Your task to perform on an android device: change the upload size in google photos Image 0: 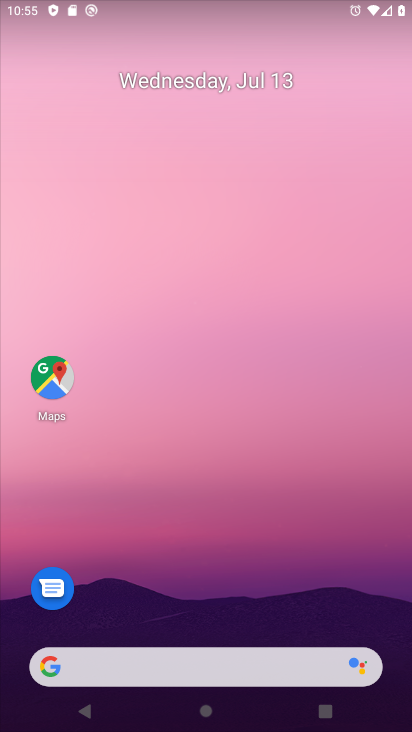
Step 0: drag from (177, 616) to (340, 75)
Your task to perform on an android device: change the upload size in google photos Image 1: 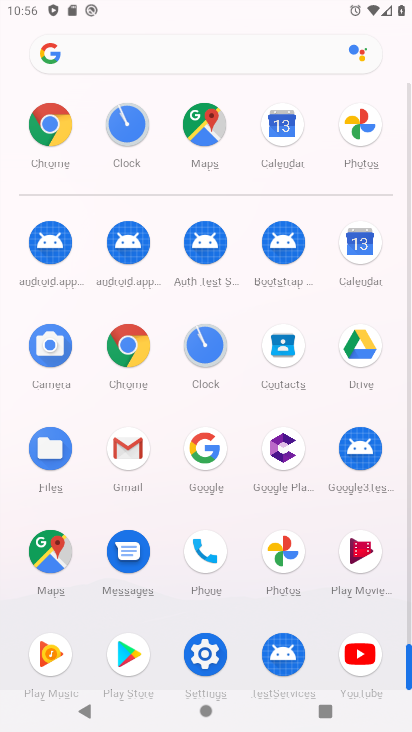
Step 1: click (297, 542)
Your task to perform on an android device: change the upload size in google photos Image 2: 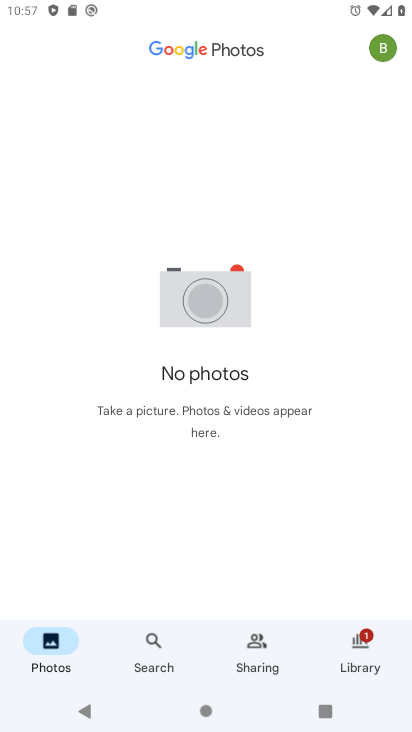
Step 2: click (385, 43)
Your task to perform on an android device: change the upload size in google photos Image 3: 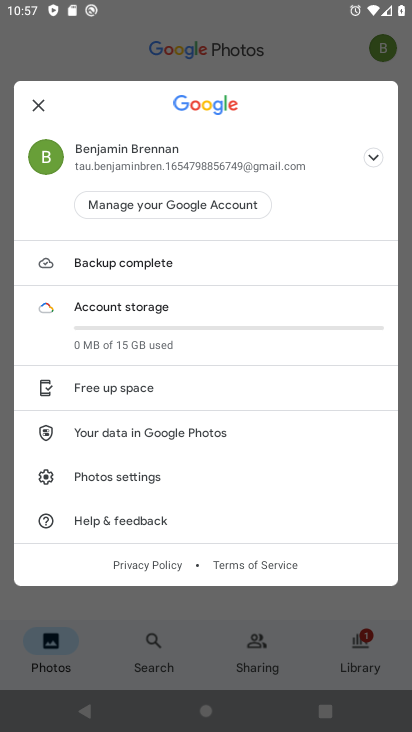
Step 3: click (125, 483)
Your task to perform on an android device: change the upload size in google photos Image 4: 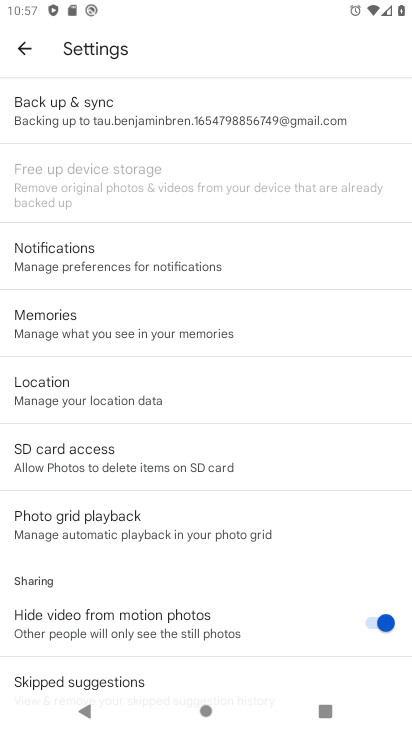
Step 4: click (184, 116)
Your task to perform on an android device: change the upload size in google photos Image 5: 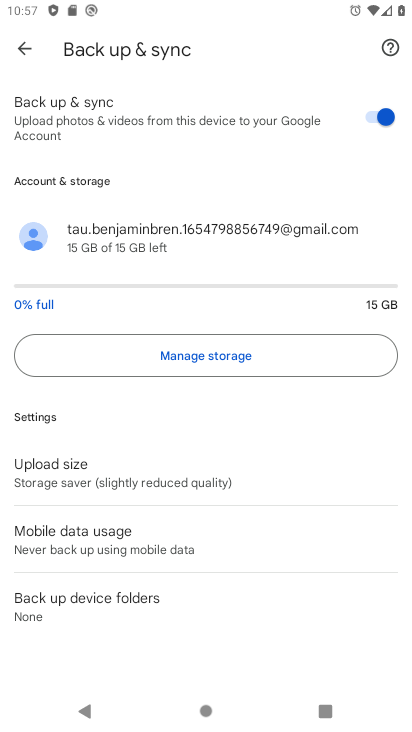
Step 5: click (230, 469)
Your task to perform on an android device: change the upload size in google photos Image 6: 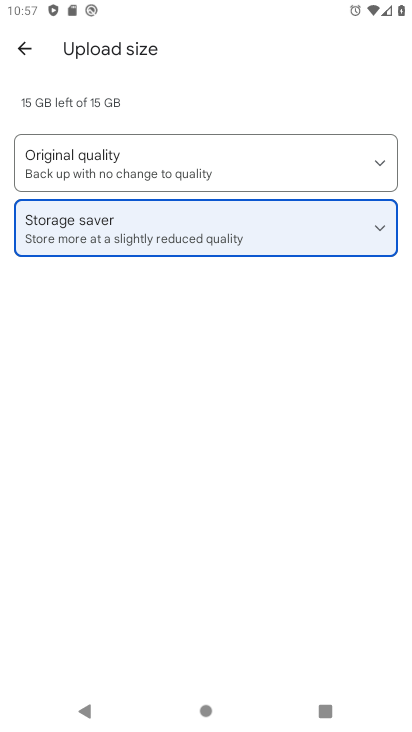
Step 6: click (103, 156)
Your task to perform on an android device: change the upload size in google photos Image 7: 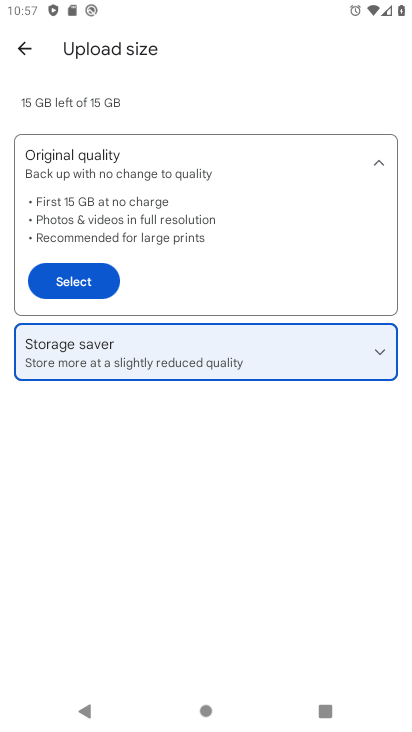
Step 7: click (86, 271)
Your task to perform on an android device: change the upload size in google photos Image 8: 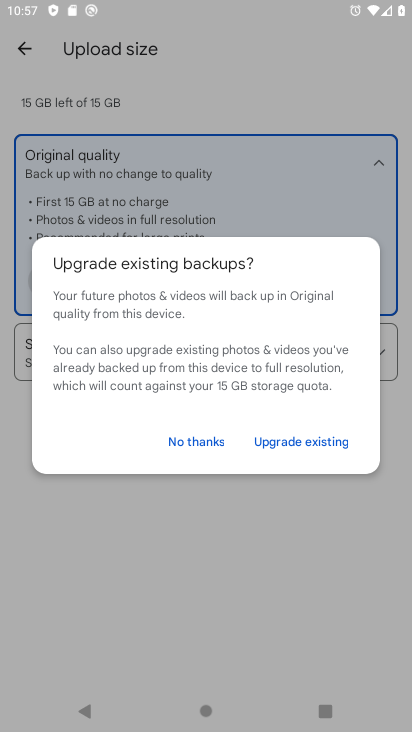
Step 8: click (217, 535)
Your task to perform on an android device: change the upload size in google photos Image 9: 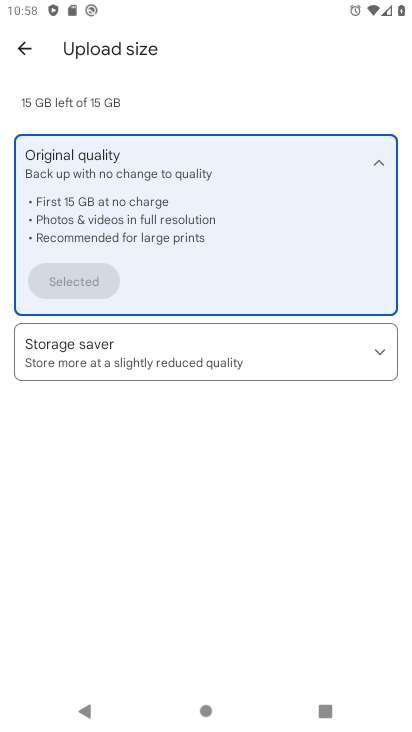
Step 9: task complete